Your task to perform on an android device: What is the recent news? Image 0: 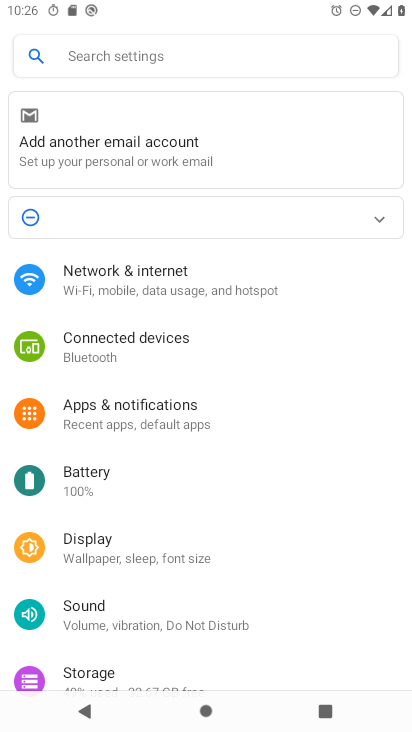
Step 0: press back button
Your task to perform on an android device: What is the recent news? Image 1: 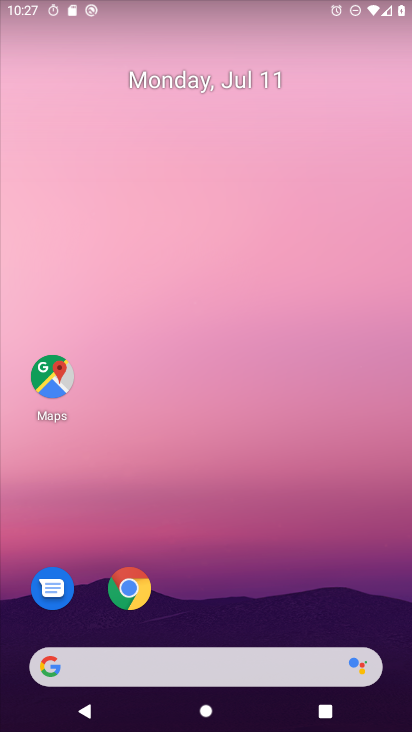
Step 1: click (123, 589)
Your task to perform on an android device: What is the recent news? Image 2: 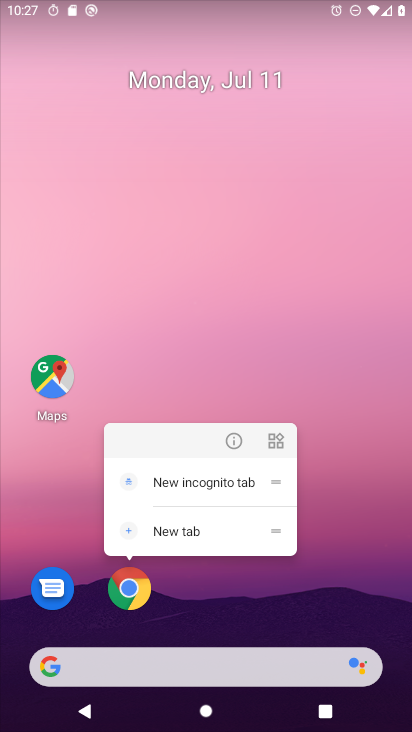
Step 2: click (137, 582)
Your task to perform on an android device: What is the recent news? Image 3: 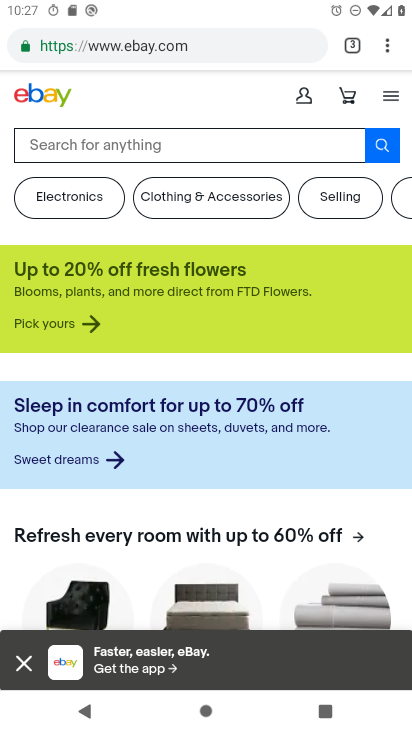
Step 3: click (351, 42)
Your task to perform on an android device: What is the recent news? Image 4: 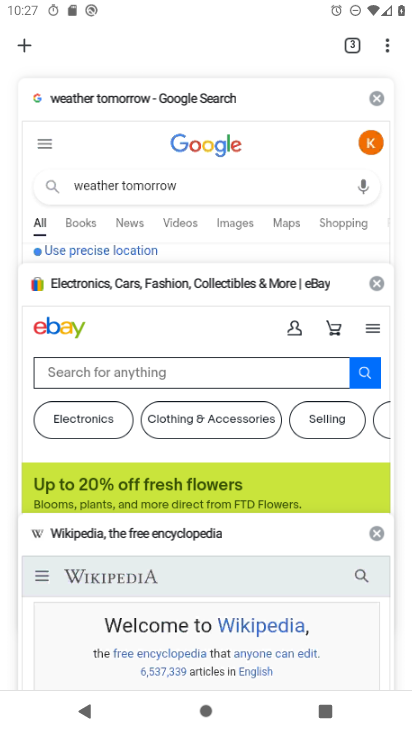
Step 4: click (22, 35)
Your task to perform on an android device: What is the recent news? Image 5: 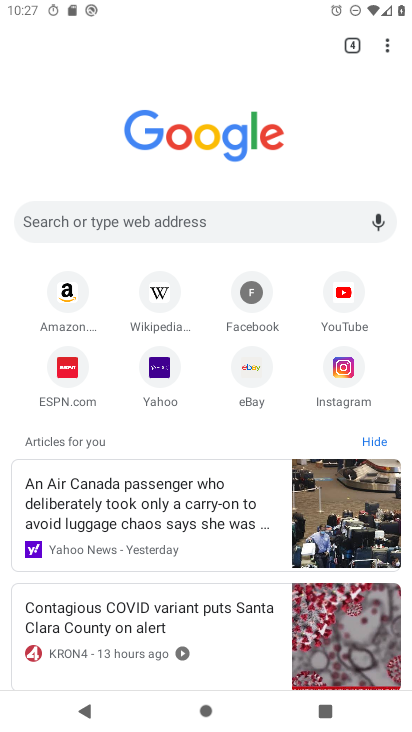
Step 5: click (106, 222)
Your task to perform on an android device: What is the recent news? Image 6: 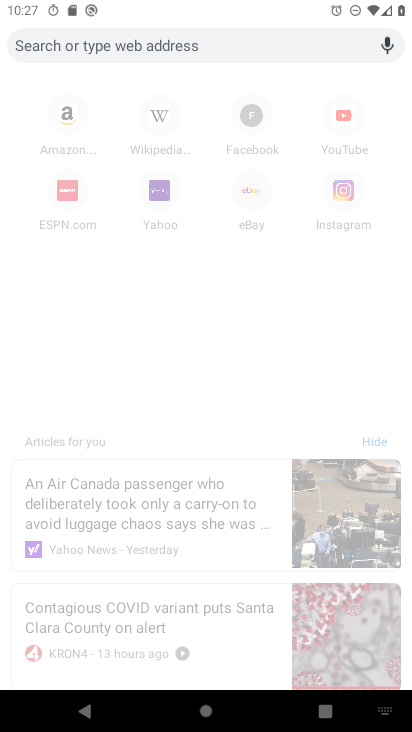
Step 6: type "recent news"
Your task to perform on an android device: What is the recent news? Image 7: 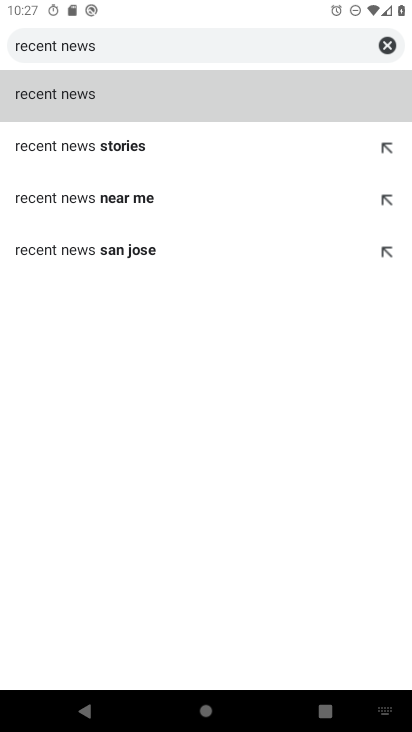
Step 7: click (57, 97)
Your task to perform on an android device: What is the recent news? Image 8: 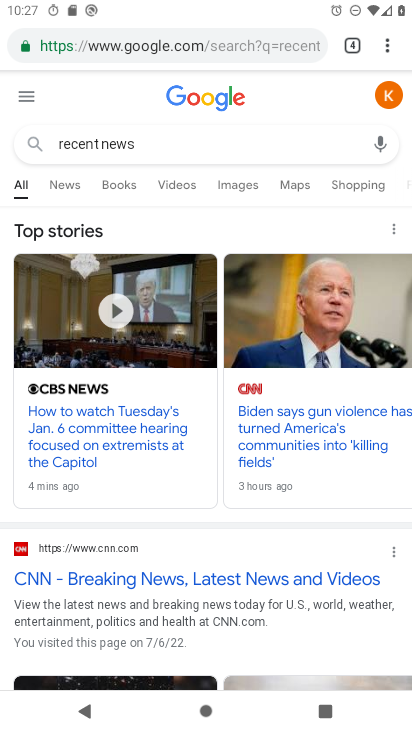
Step 8: task complete